Your task to perform on an android device: toggle data saver in the chrome app Image 0: 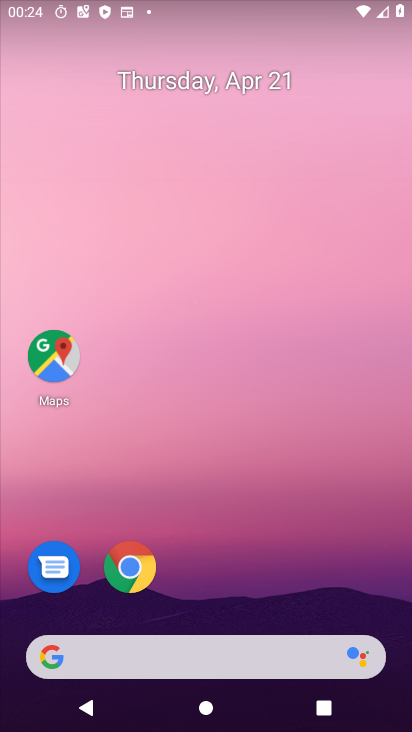
Step 0: click (327, 169)
Your task to perform on an android device: toggle data saver in the chrome app Image 1: 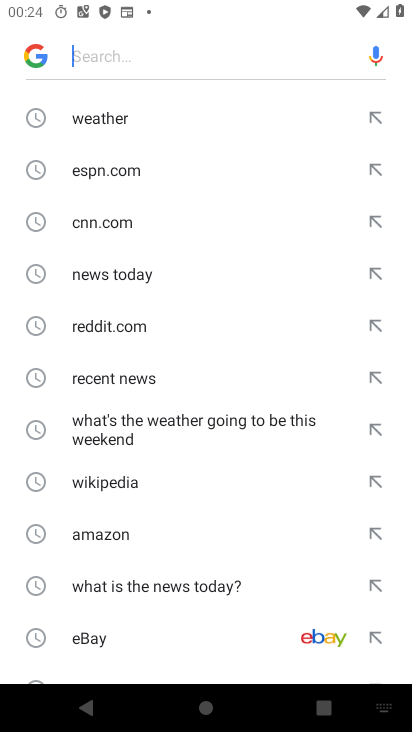
Step 1: press home button
Your task to perform on an android device: toggle data saver in the chrome app Image 2: 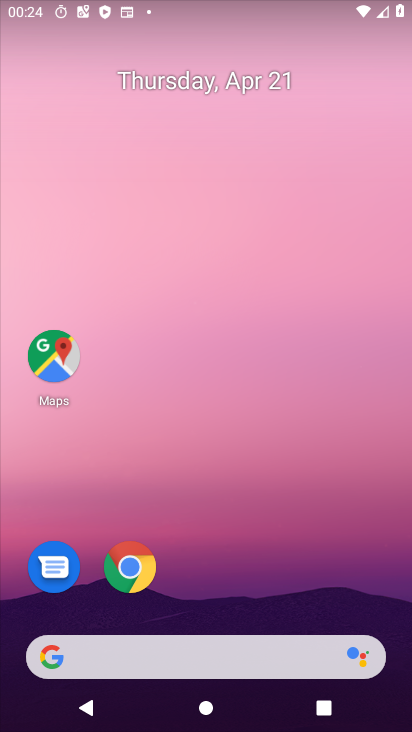
Step 2: drag from (229, 549) to (320, 245)
Your task to perform on an android device: toggle data saver in the chrome app Image 3: 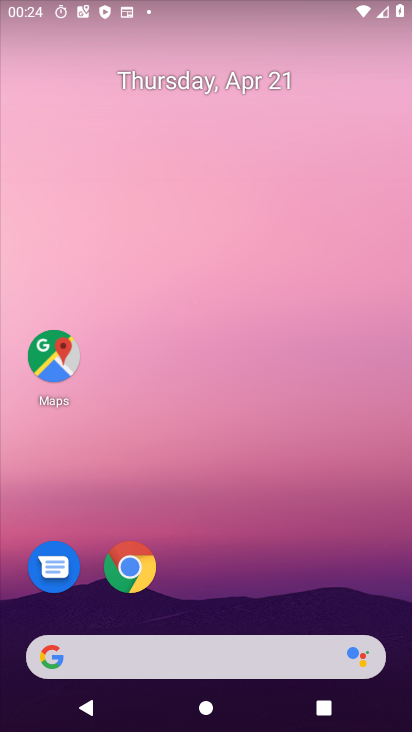
Step 3: drag from (225, 611) to (248, 203)
Your task to perform on an android device: toggle data saver in the chrome app Image 4: 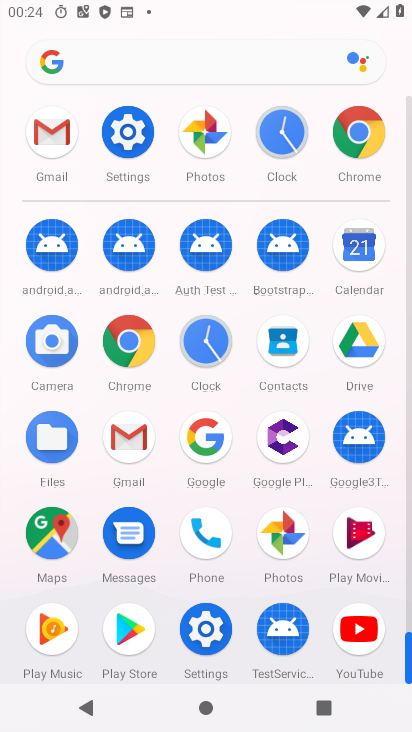
Step 4: click (358, 138)
Your task to perform on an android device: toggle data saver in the chrome app Image 5: 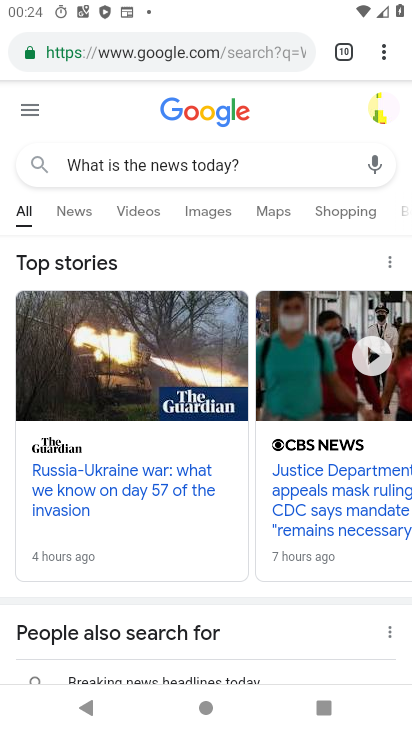
Step 5: click (368, 44)
Your task to perform on an android device: toggle data saver in the chrome app Image 6: 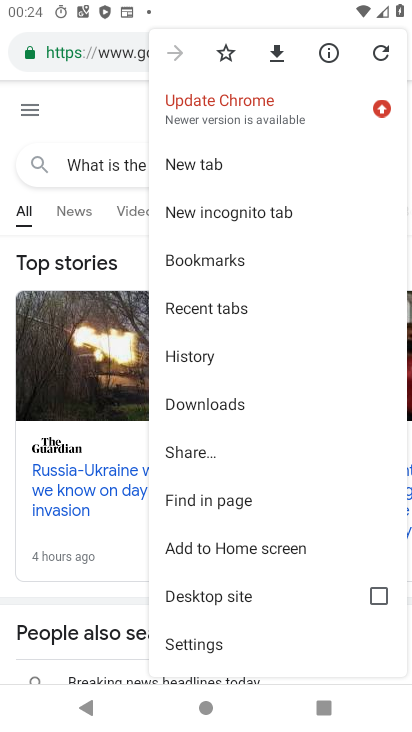
Step 6: click (219, 640)
Your task to perform on an android device: toggle data saver in the chrome app Image 7: 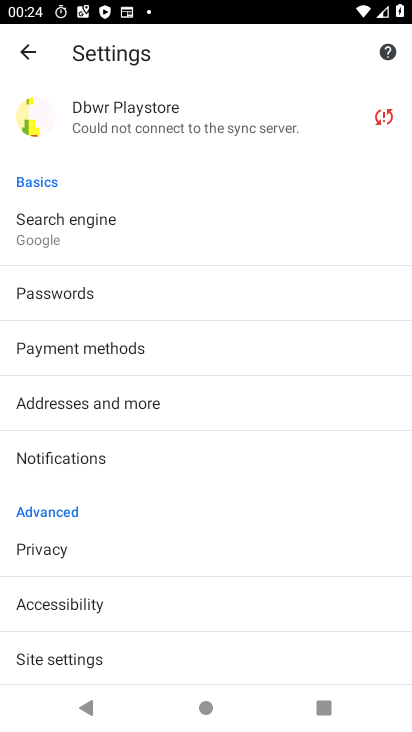
Step 7: drag from (217, 647) to (245, 352)
Your task to perform on an android device: toggle data saver in the chrome app Image 8: 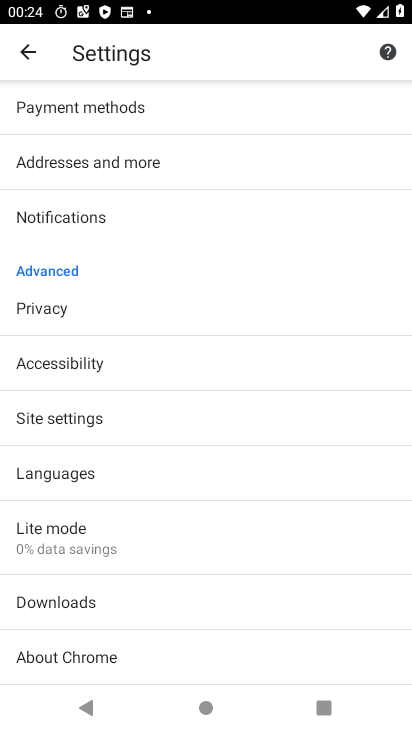
Step 8: click (123, 534)
Your task to perform on an android device: toggle data saver in the chrome app Image 9: 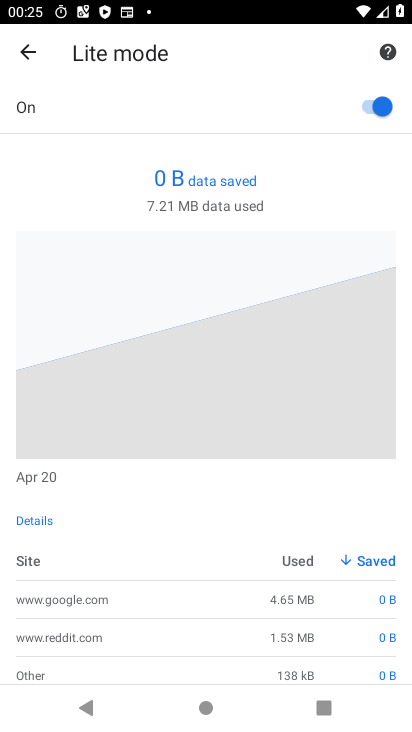
Step 9: click (376, 98)
Your task to perform on an android device: toggle data saver in the chrome app Image 10: 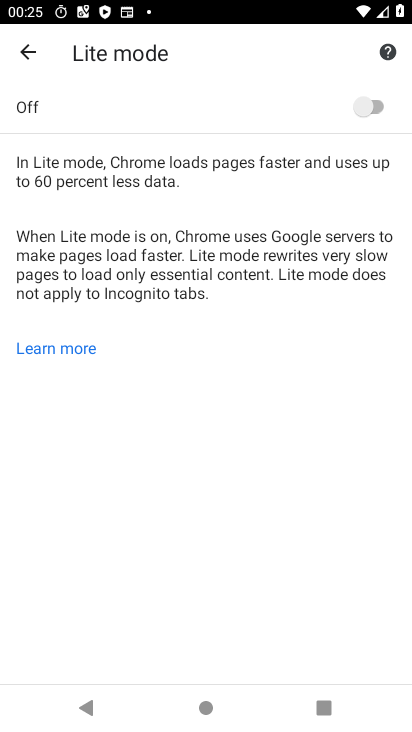
Step 10: task complete